Your task to perform on an android device: change alarm snooze length Image 0: 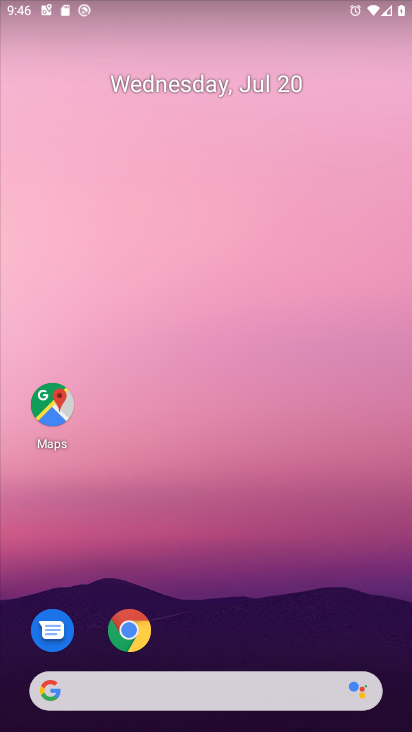
Step 0: drag from (245, 699) to (260, 16)
Your task to perform on an android device: change alarm snooze length Image 1: 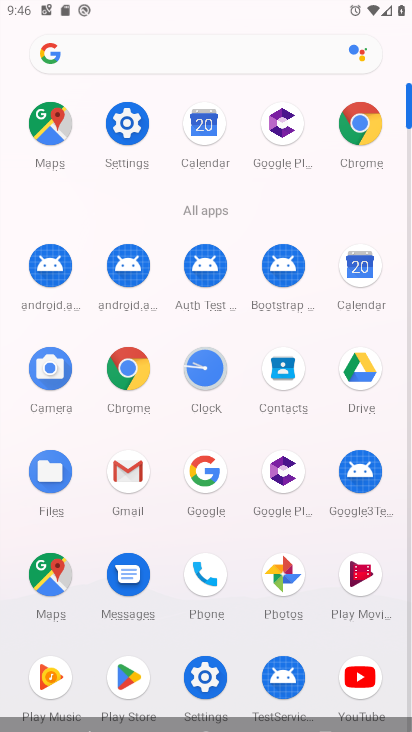
Step 1: click (201, 390)
Your task to perform on an android device: change alarm snooze length Image 2: 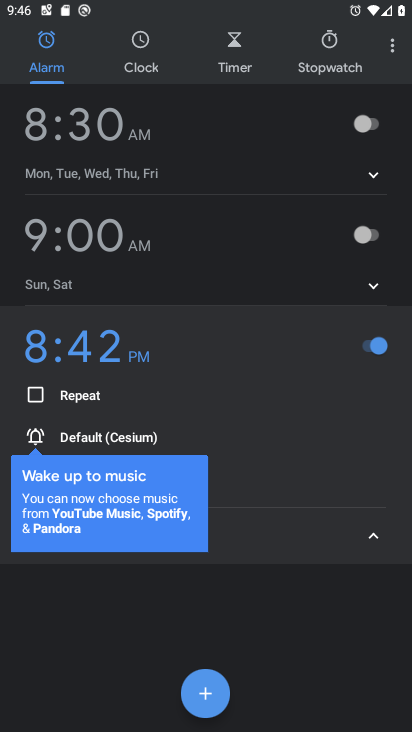
Step 2: click (391, 37)
Your task to perform on an android device: change alarm snooze length Image 3: 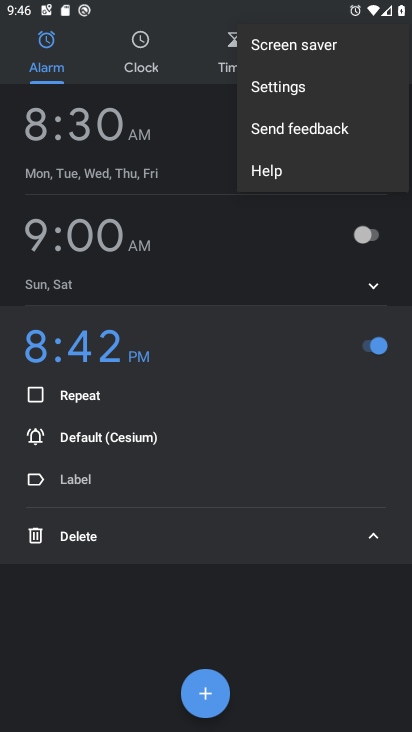
Step 3: click (299, 94)
Your task to perform on an android device: change alarm snooze length Image 4: 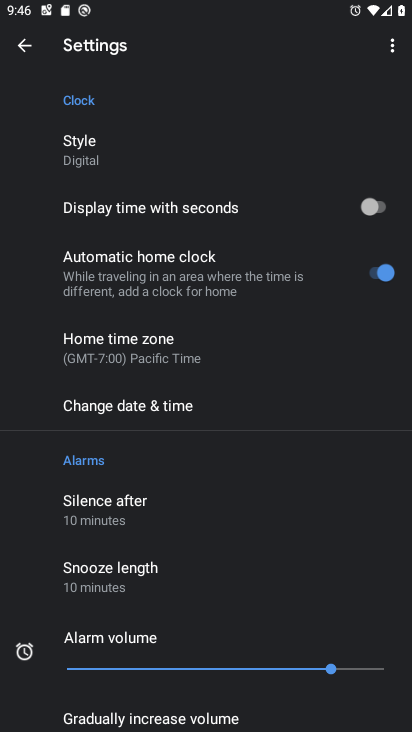
Step 4: click (124, 567)
Your task to perform on an android device: change alarm snooze length Image 5: 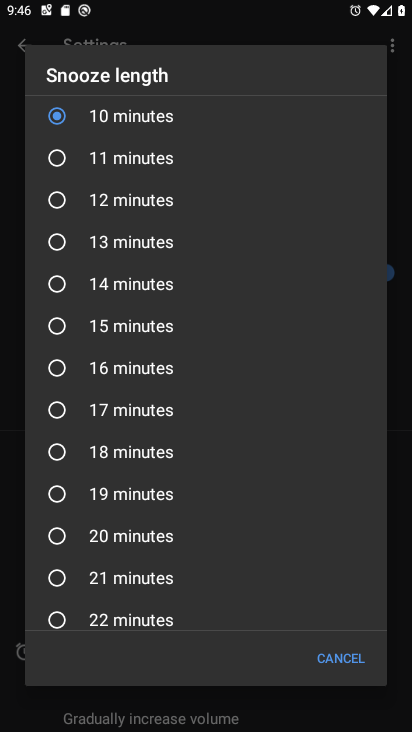
Step 5: click (119, 607)
Your task to perform on an android device: change alarm snooze length Image 6: 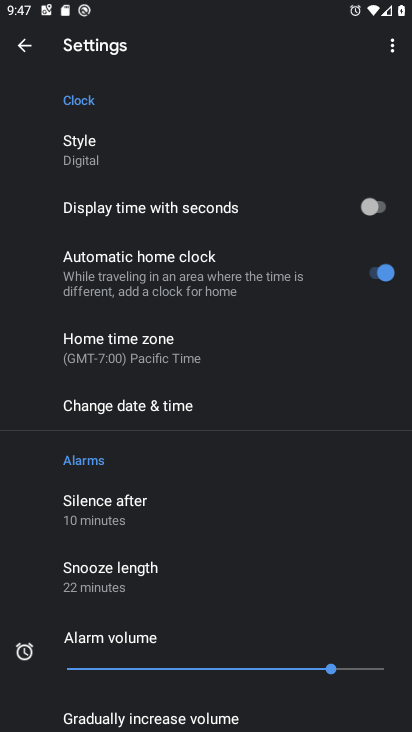
Step 6: task complete